Your task to perform on an android device: Go to network settings Image 0: 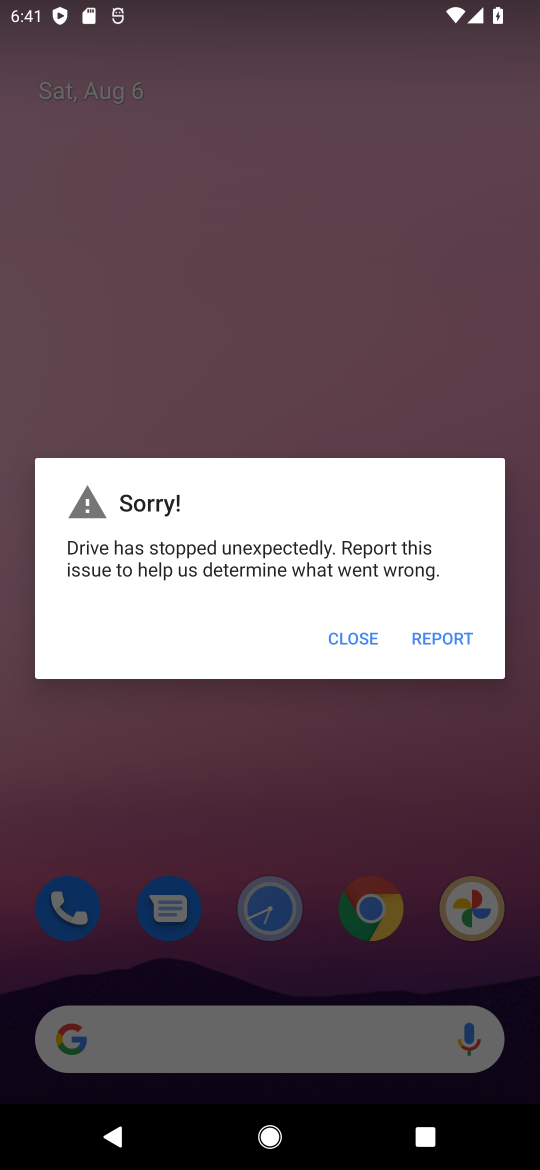
Step 0: press home button
Your task to perform on an android device: Go to network settings Image 1: 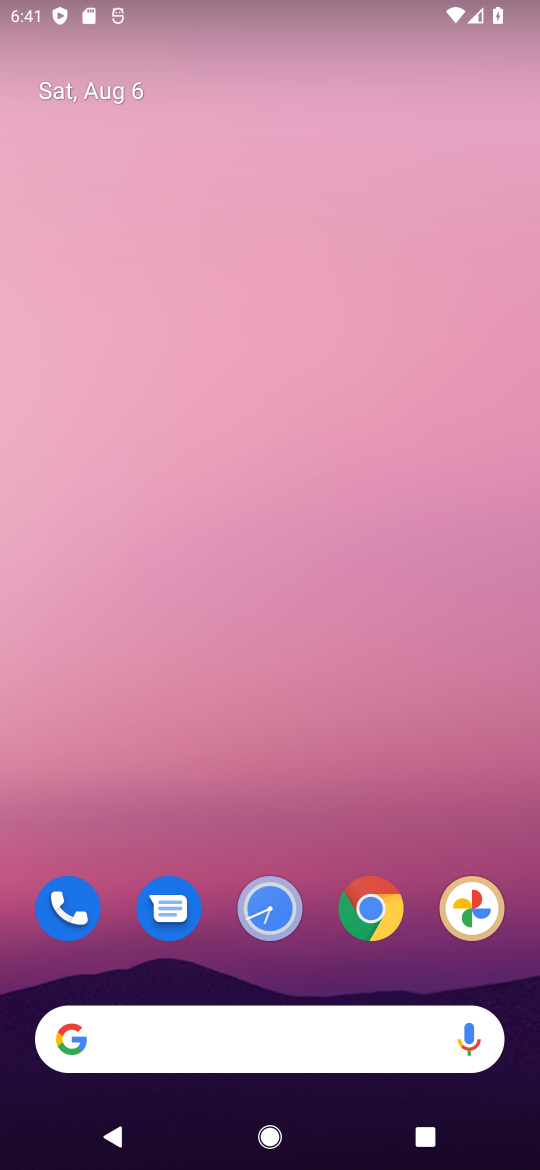
Step 1: drag from (385, 833) to (341, 227)
Your task to perform on an android device: Go to network settings Image 2: 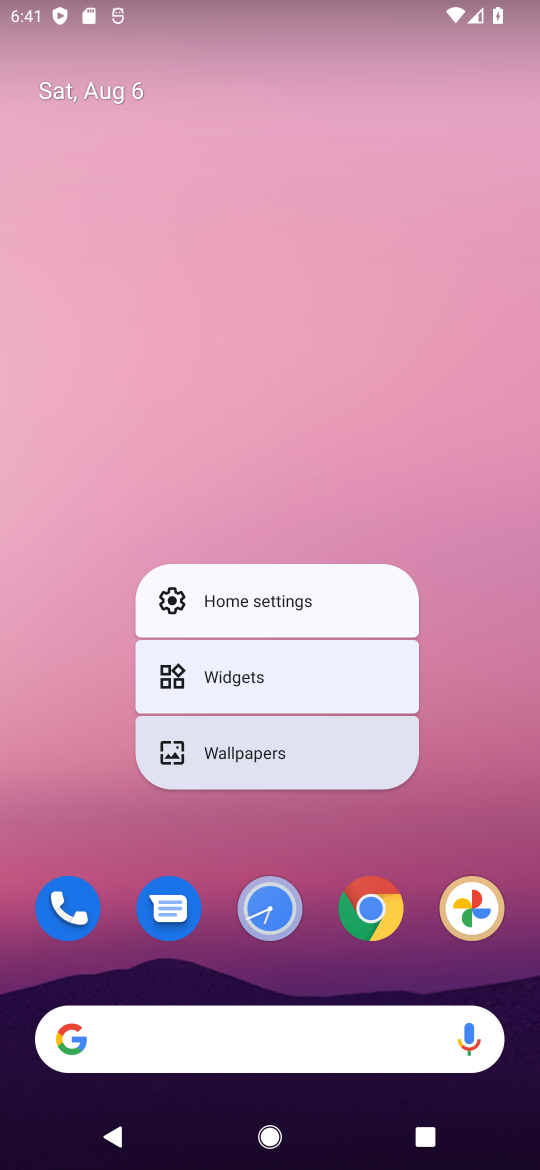
Step 2: click (343, 234)
Your task to perform on an android device: Go to network settings Image 3: 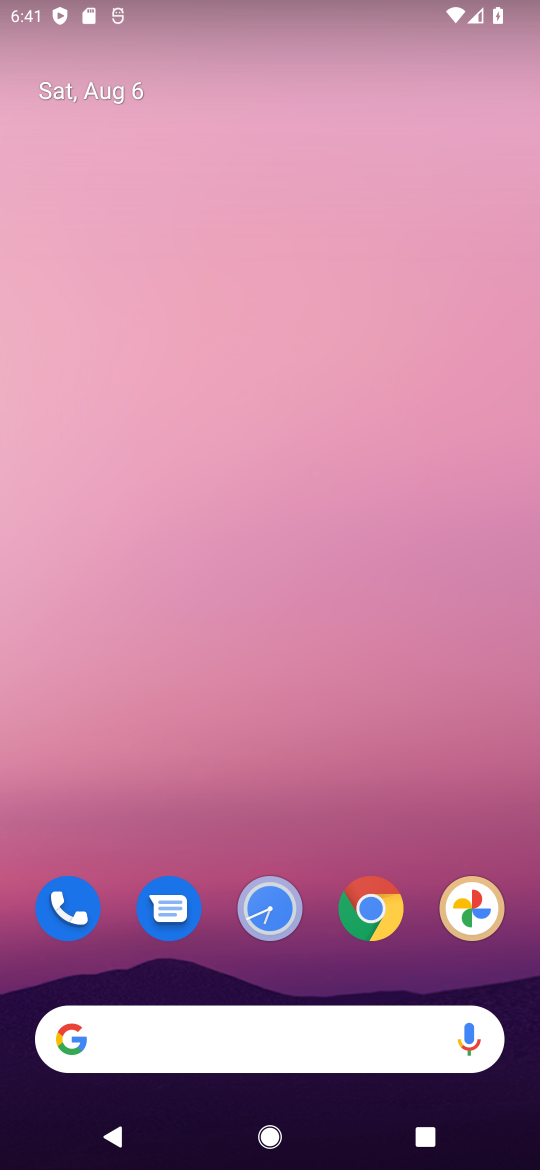
Step 3: drag from (319, 858) to (326, 185)
Your task to perform on an android device: Go to network settings Image 4: 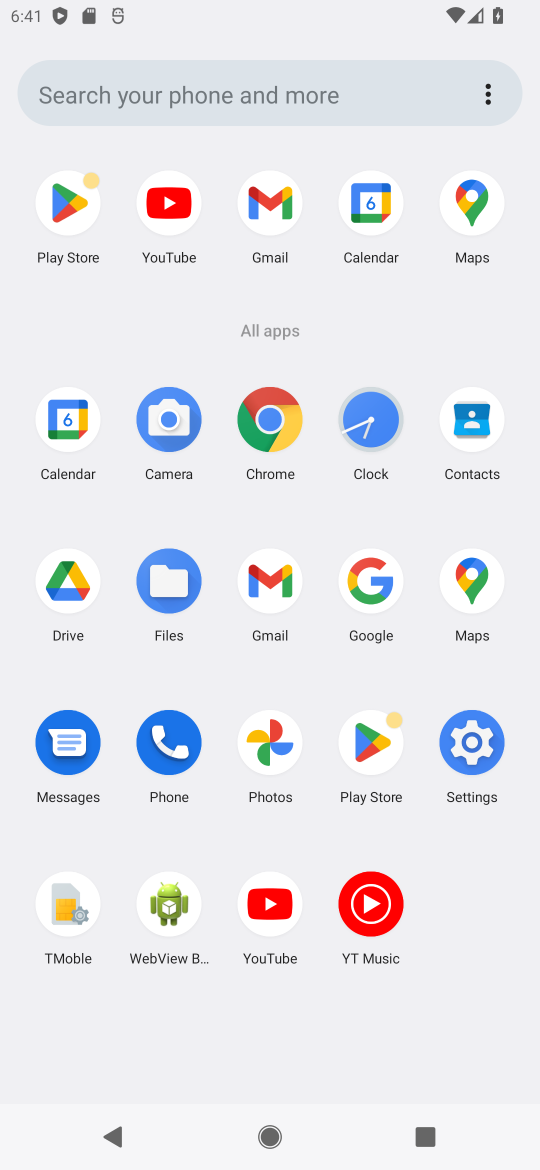
Step 4: click (483, 758)
Your task to perform on an android device: Go to network settings Image 5: 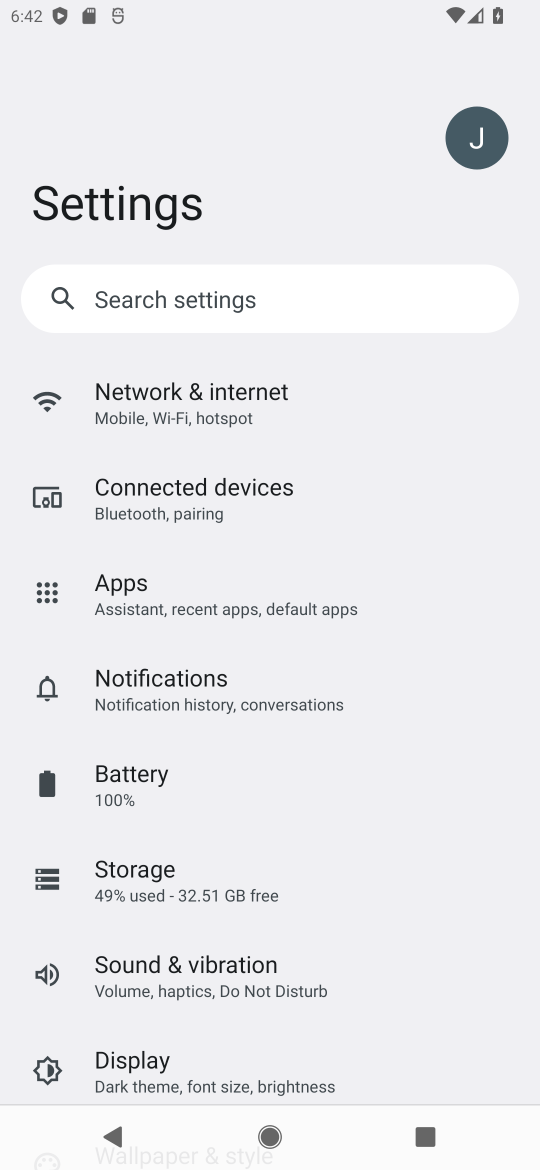
Step 5: drag from (340, 818) to (344, 1021)
Your task to perform on an android device: Go to network settings Image 6: 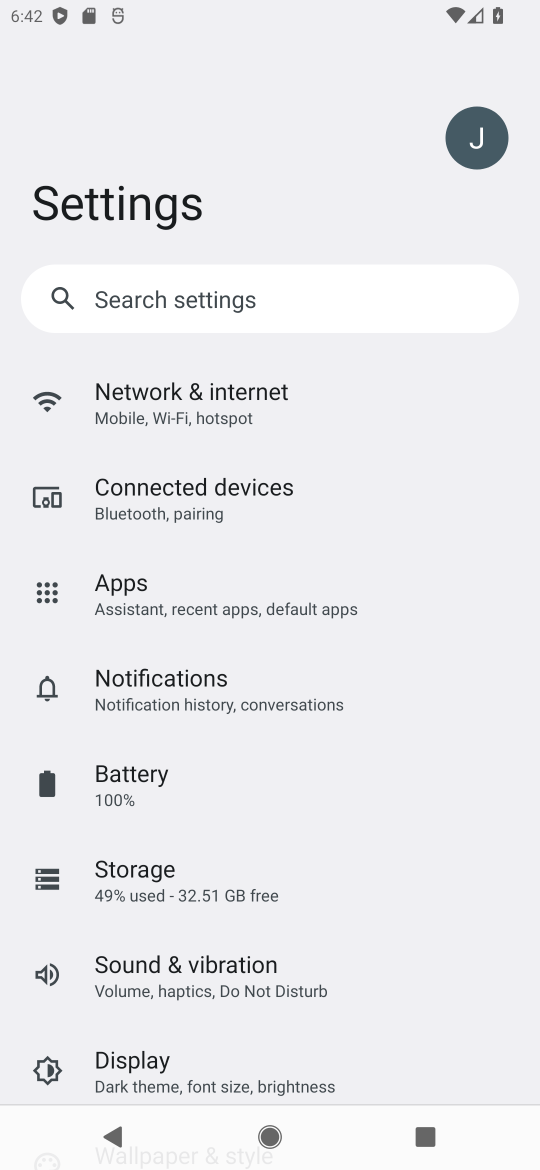
Step 6: click (270, 399)
Your task to perform on an android device: Go to network settings Image 7: 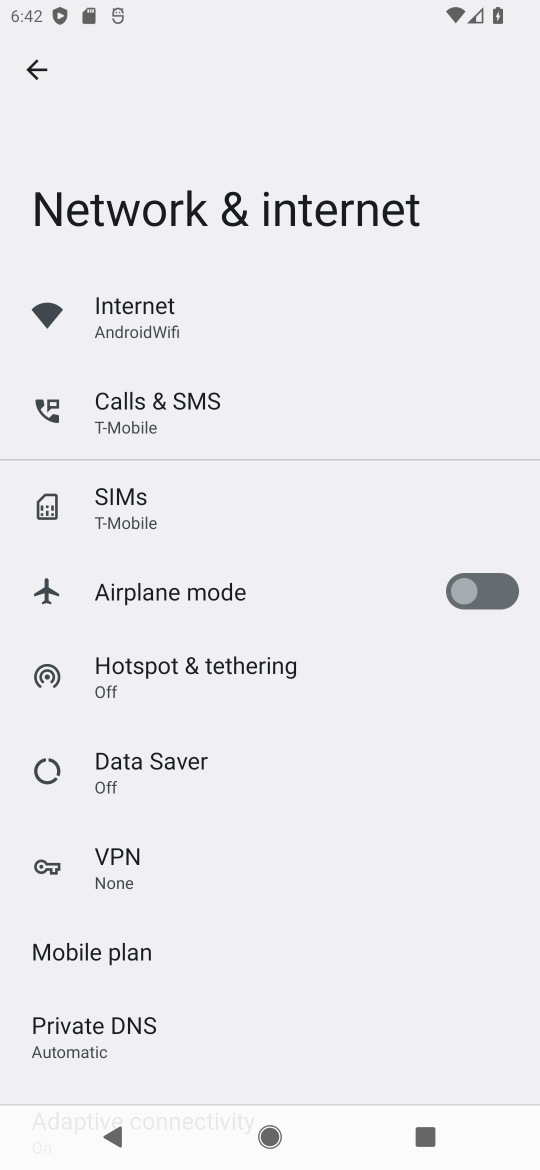
Step 7: click (302, 990)
Your task to perform on an android device: Go to network settings Image 8: 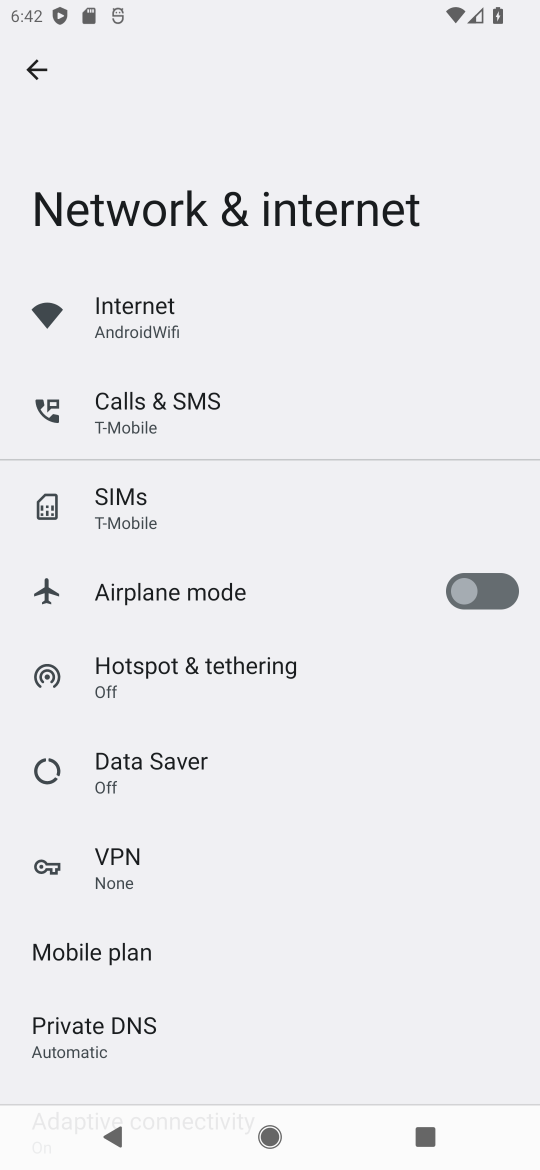
Step 8: click (183, 306)
Your task to perform on an android device: Go to network settings Image 9: 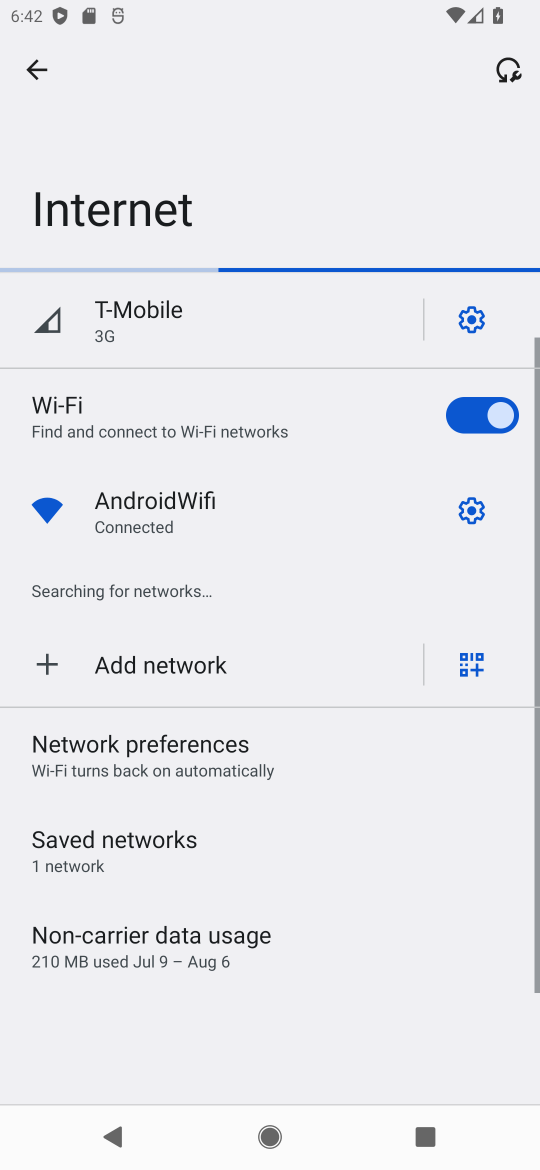
Step 9: task complete